Your task to perform on an android device: turn off airplane mode Image 0: 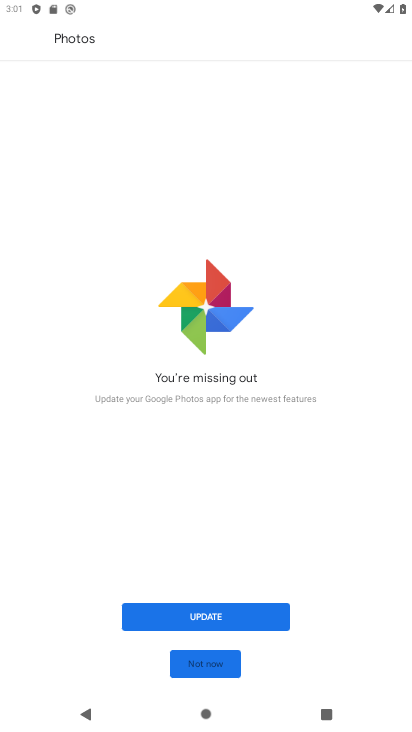
Step 0: press home button
Your task to perform on an android device: turn off airplane mode Image 1: 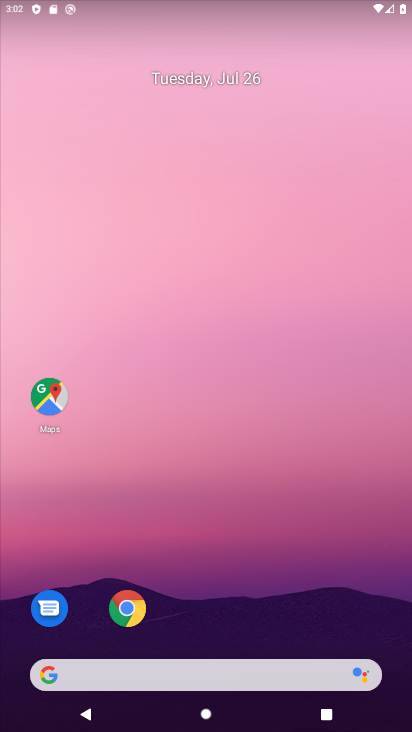
Step 1: drag from (217, 628) to (261, 29)
Your task to perform on an android device: turn off airplane mode Image 2: 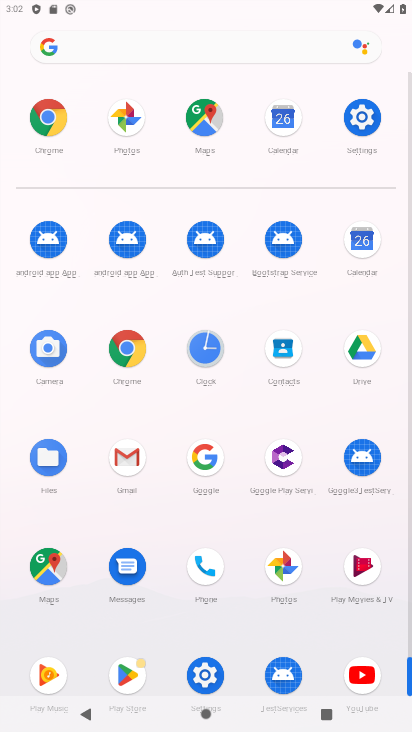
Step 2: click (361, 138)
Your task to perform on an android device: turn off airplane mode Image 3: 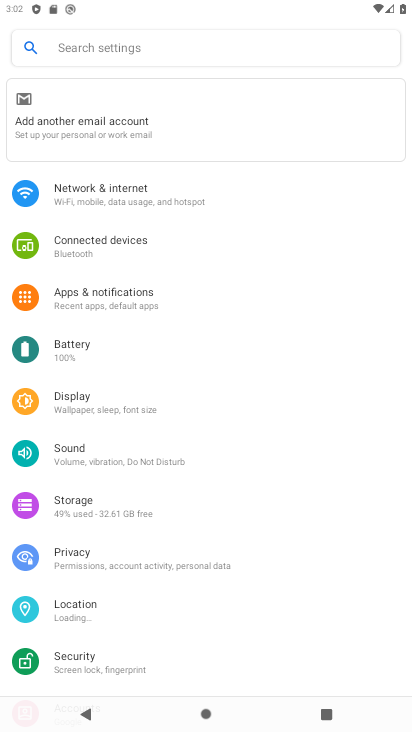
Step 3: click (183, 200)
Your task to perform on an android device: turn off airplane mode Image 4: 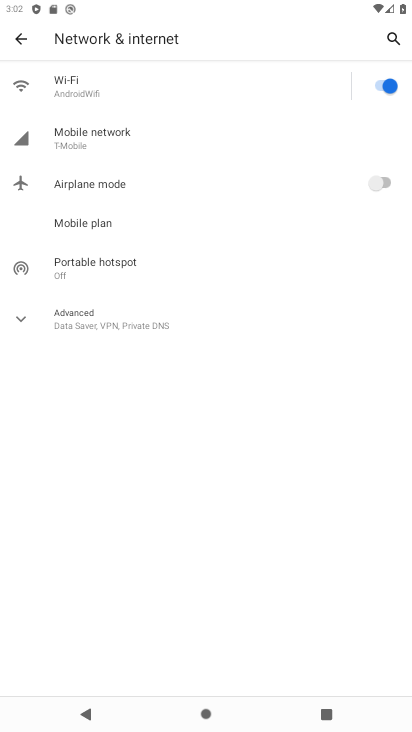
Step 4: task complete